Your task to perform on an android device: Turn off the flashlight Image 0: 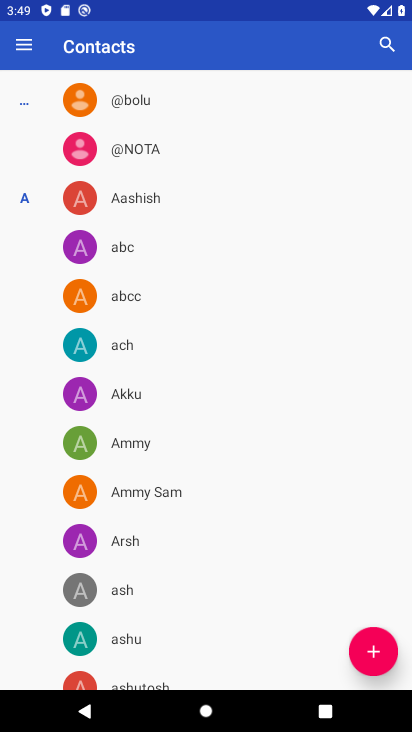
Step 0: press home button
Your task to perform on an android device: Turn off the flashlight Image 1: 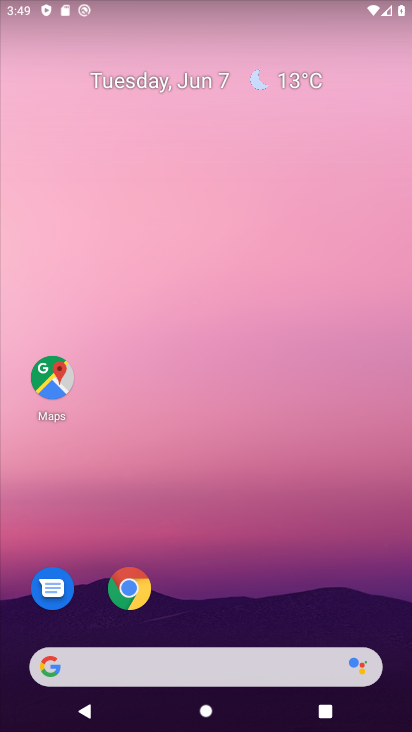
Step 1: task complete